Your task to perform on an android device: check google app version Image 0: 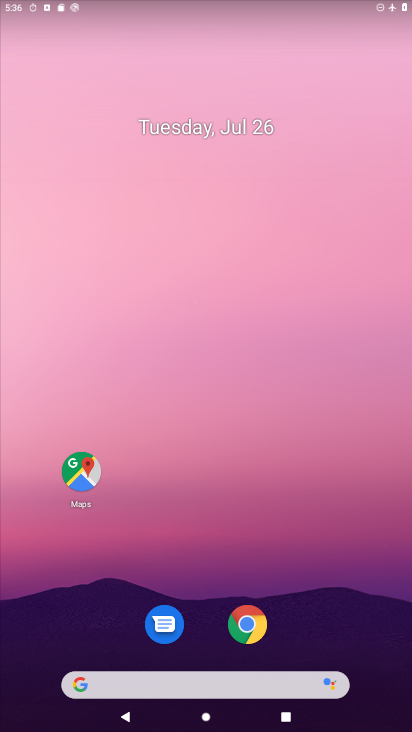
Step 0: drag from (279, 680) to (231, 7)
Your task to perform on an android device: check google app version Image 1: 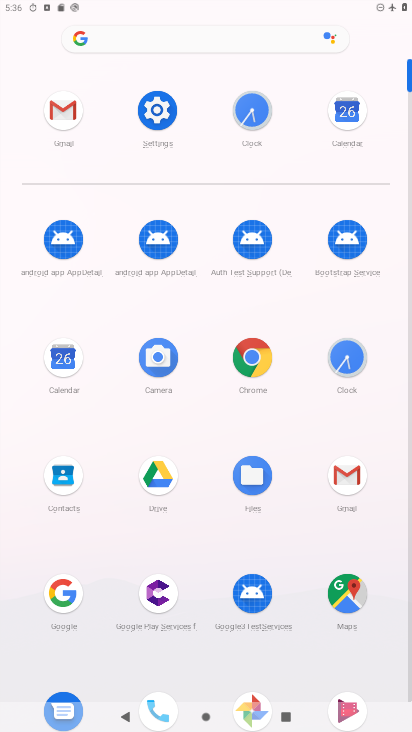
Step 1: click (260, 349)
Your task to perform on an android device: check google app version Image 2: 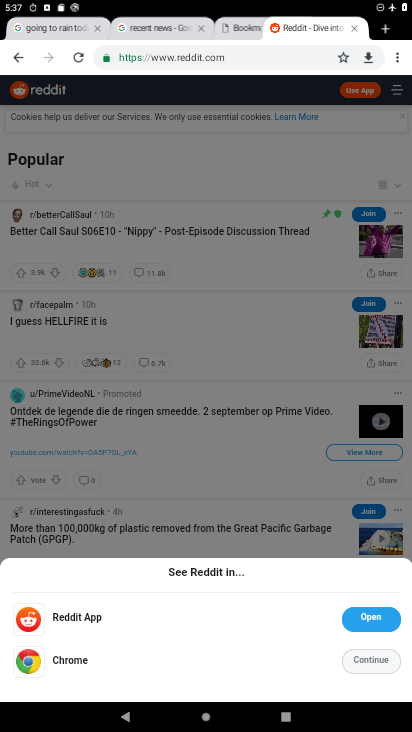
Step 2: click (402, 52)
Your task to perform on an android device: check google app version Image 3: 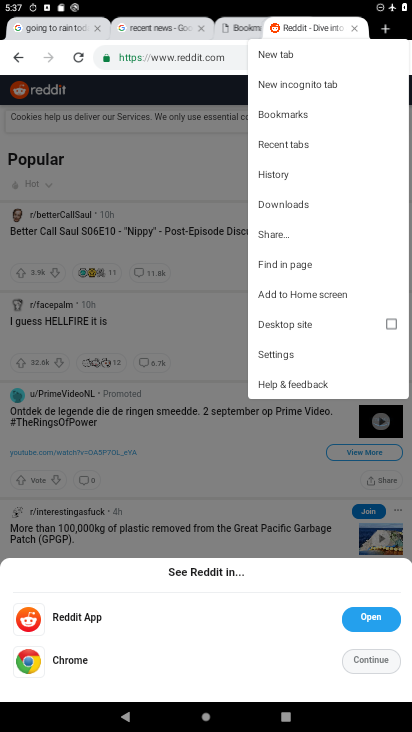
Step 3: click (329, 379)
Your task to perform on an android device: check google app version Image 4: 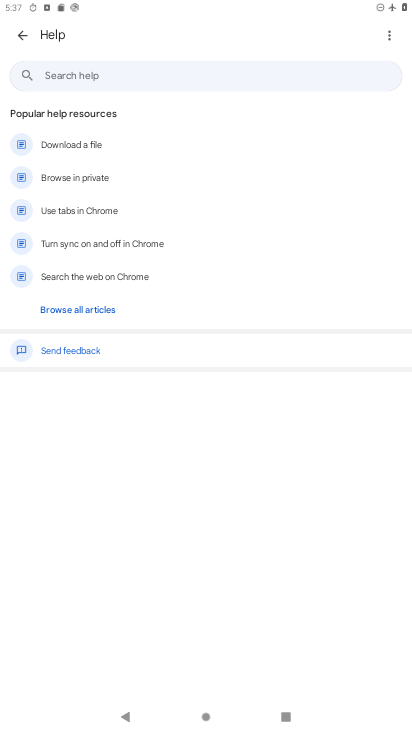
Step 4: click (380, 36)
Your task to perform on an android device: check google app version Image 5: 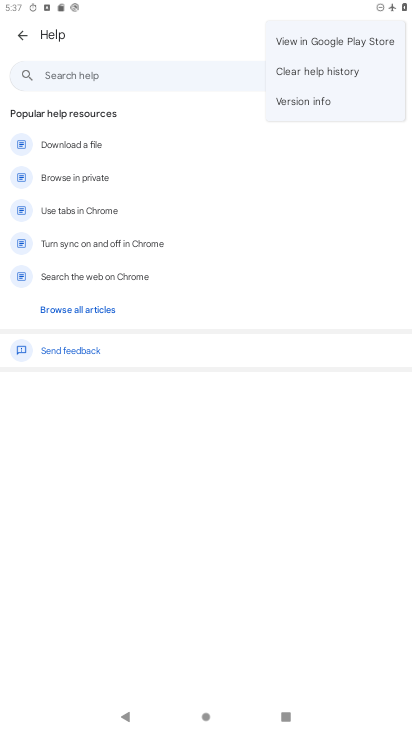
Step 5: click (324, 97)
Your task to perform on an android device: check google app version Image 6: 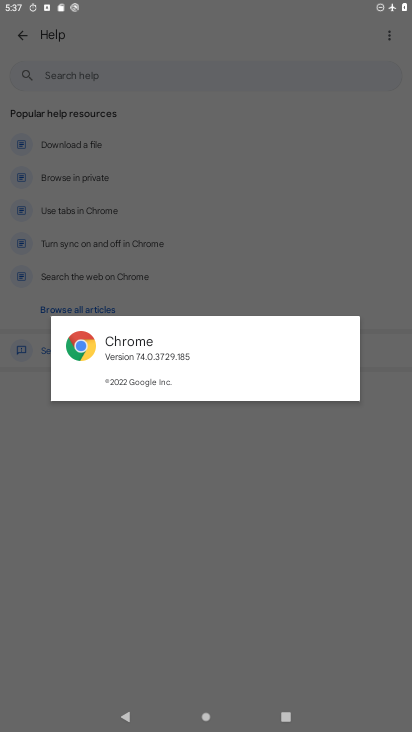
Step 6: task complete